Your task to perform on an android device: What's the weather going to be tomorrow? Image 0: 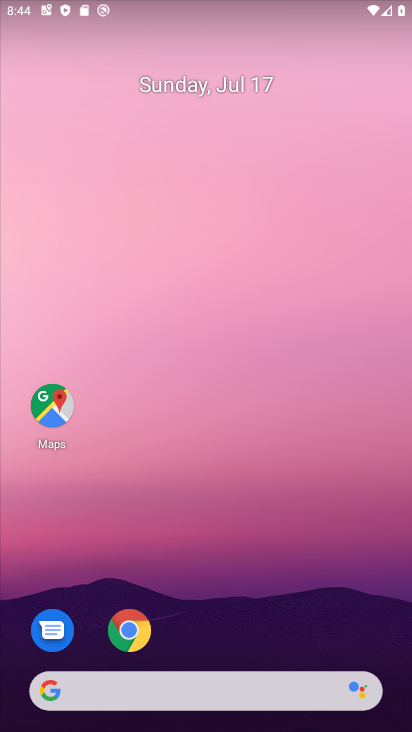
Step 0: drag from (53, 730) to (235, 726)
Your task to perform on an android device: What's the weather going to be tomorrow? Image 1: 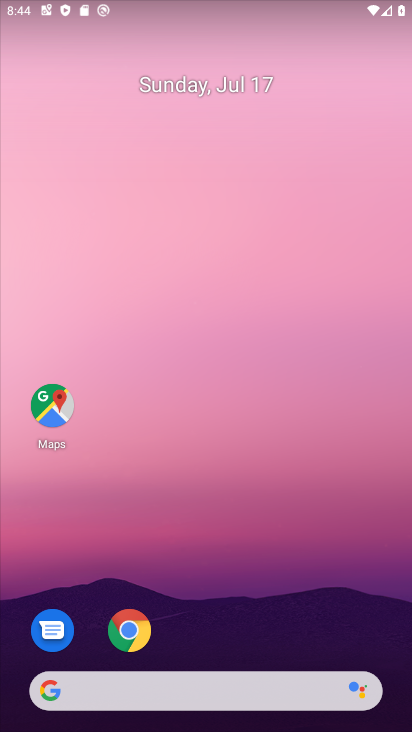
Step 1: click (254, 687)
Your task to perform on an android device: What's the weather going to be tomorrow? Image 2: 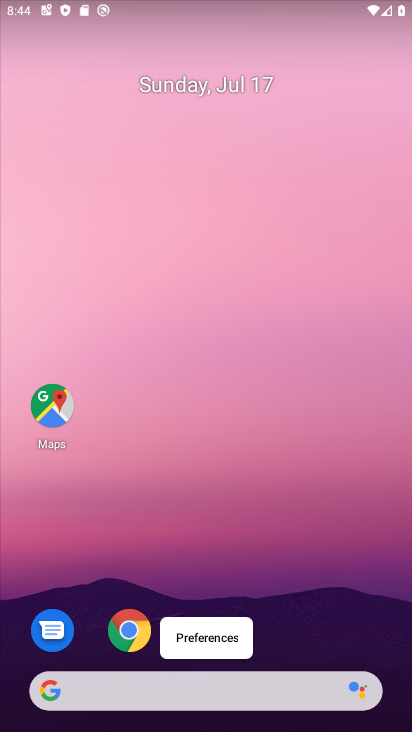
Step 2: drag from (241, 689) to (143, 45)
Your task to perform on an android device: What's the weather going to be tomorrow? Image 3: 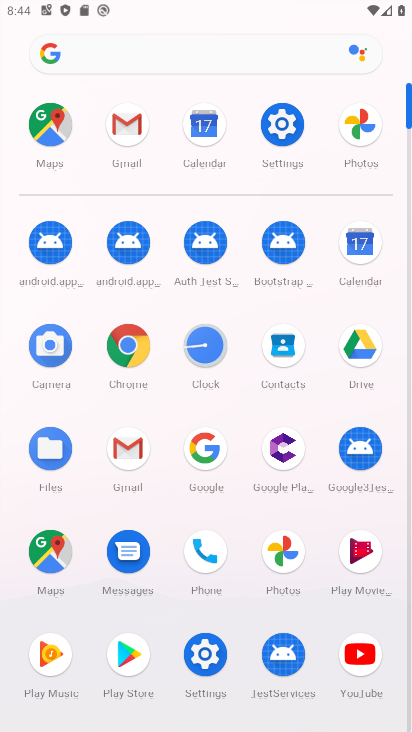
Step 3: drag from (226, 697) to (199, 4)
Your task to perform on an android device: What's the weather going to be tomorrow? Image 4: 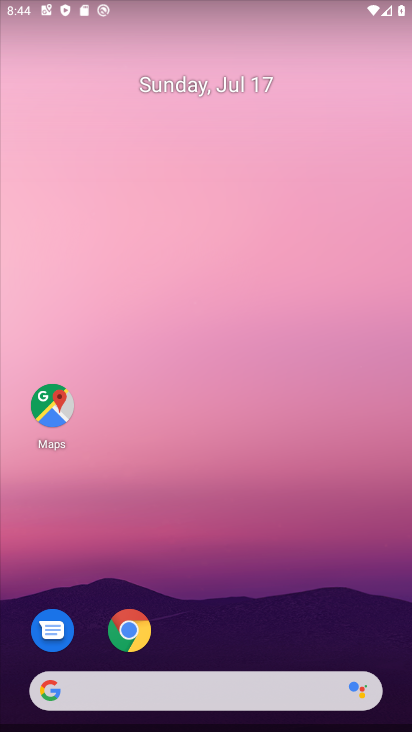
Step 4: drag from (254, 681) to (257, 9)
Your task to perform on an android device: What's the weather going to be tomorrow? Image 5: 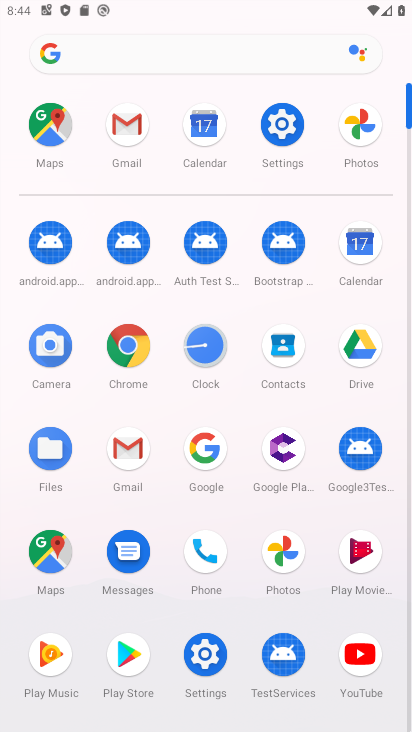
Step 5: click (135, 53)
Your task to perform on an android device: What's the weather going to be tomorrow? Image 6: 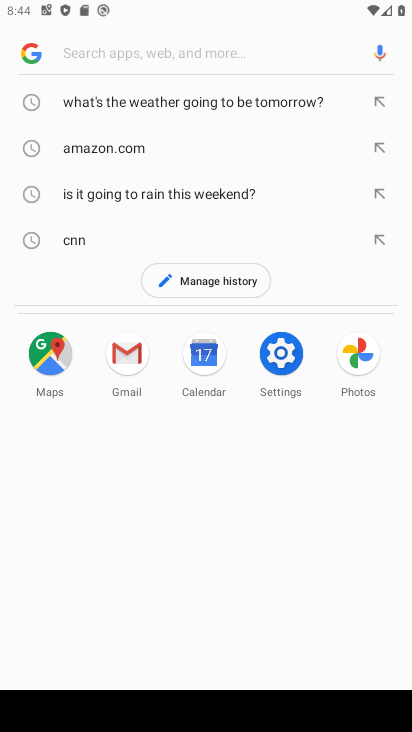
Step 6: type " What's the weather going to be tomorrow?"
Your task to perform on an android device: What's the weather going to be tomorrow? Image 7: 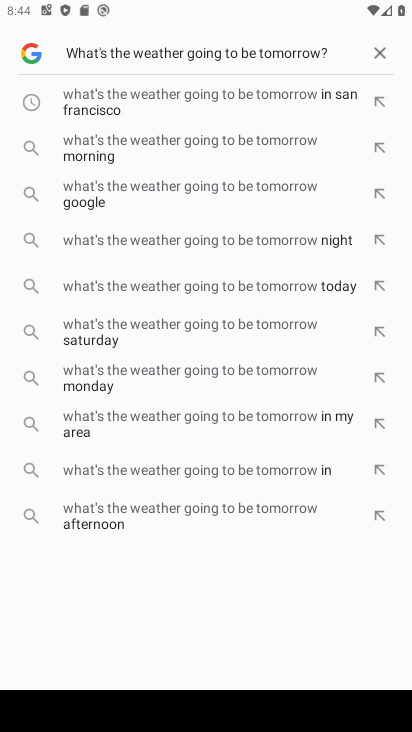
Step 7: press enter
Your task to perform on an android device: What's the weather going to be tomorrow? Image 8: 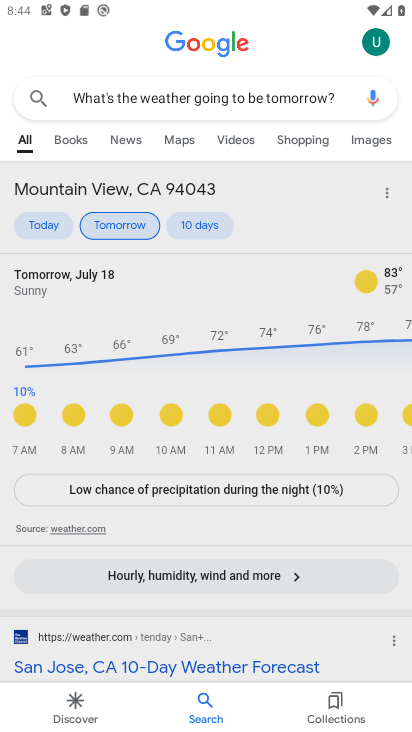
Step 8: task complete